Your task to perform on an android device: How do I get to the nearest McDonalds? Image 0: 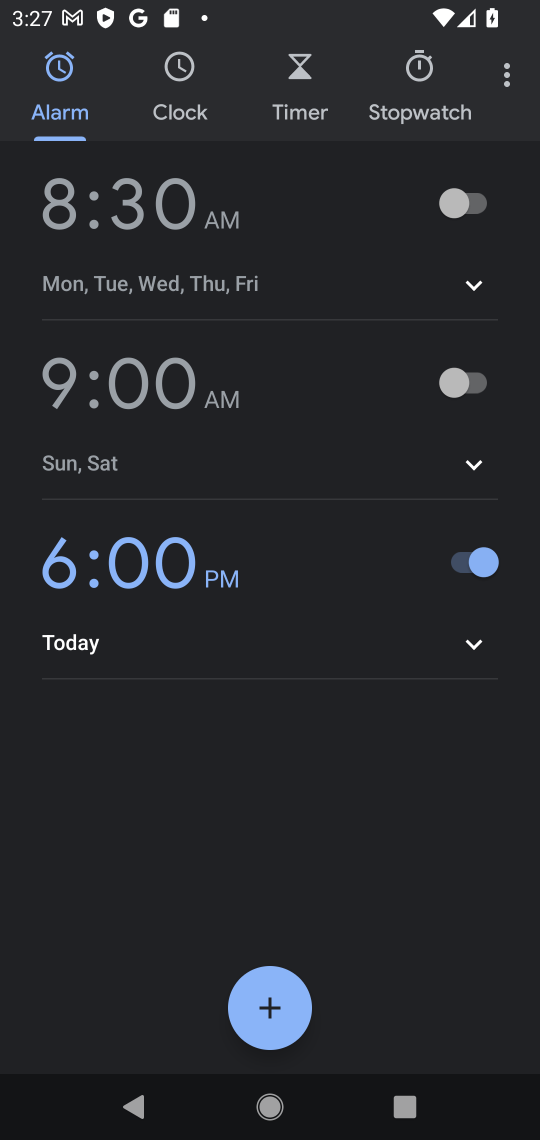
Step 0: press home button
Your task to perform on an android device: How do I get to the nearest McDonalds? Image 1: 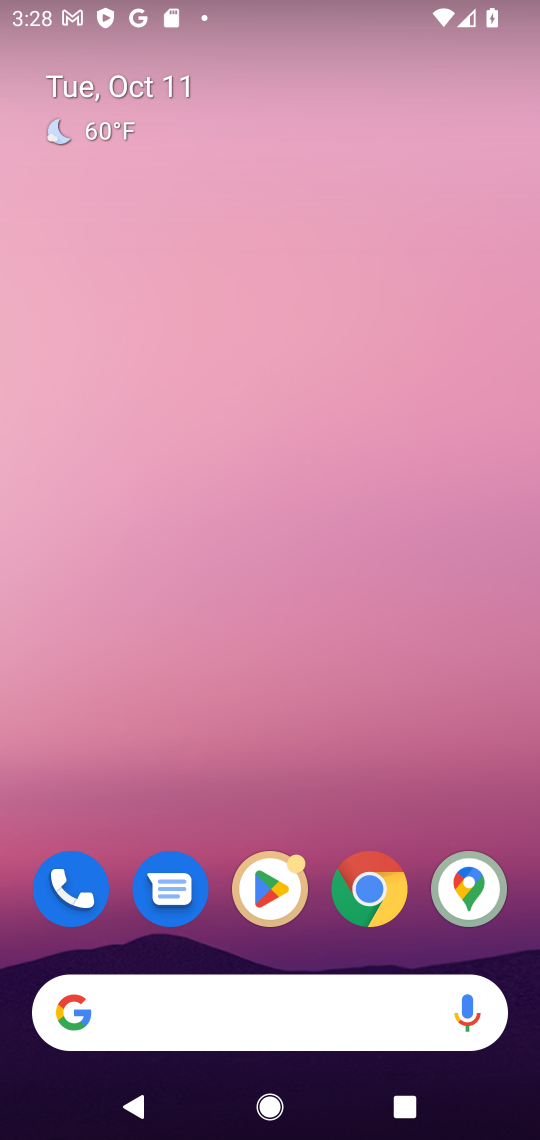
Step 1: drag from (189, 945) to (193, 291)
Your task to perform on an android device: How do I get to the nearest McDonalds? Image 2: 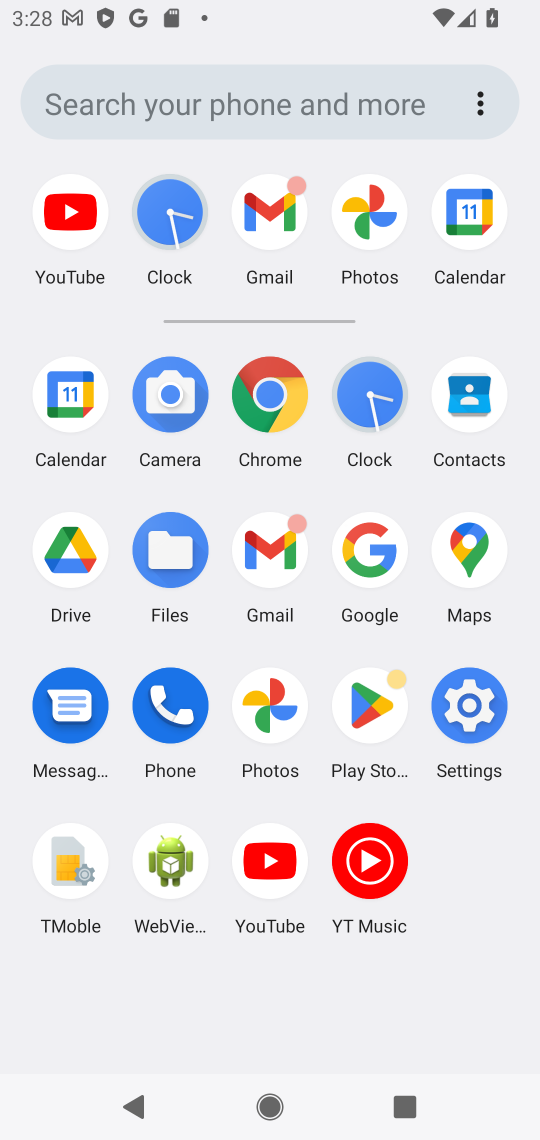
Step 2: click (375, 531)
Your task to perform on an android device: How do I get to the nearest McDonalds? Image 3: 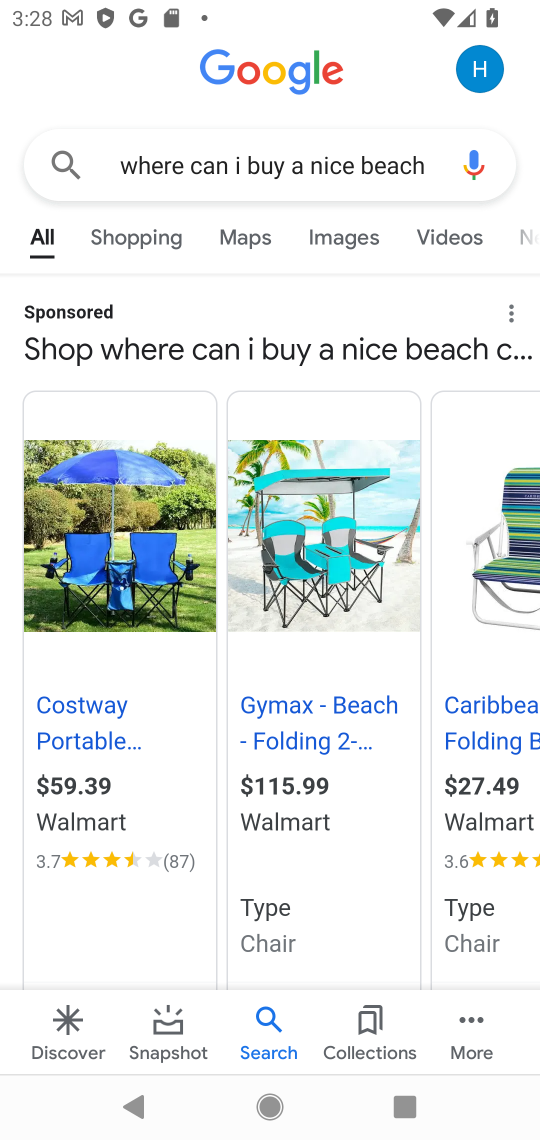
Step 3: click (296, 162)
Your task to perform on an android device: How do I get to the nearest McDonalds? Image 4: 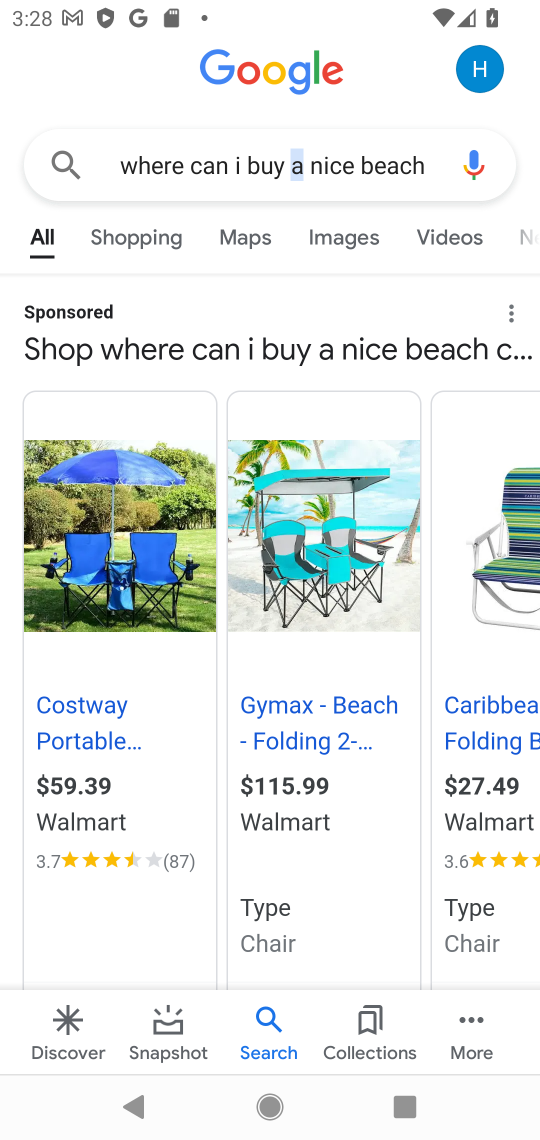
Step 4: click (326, 153)
Your task to perform on an android device: How do I get to the nearest McDonalds? Image 5: 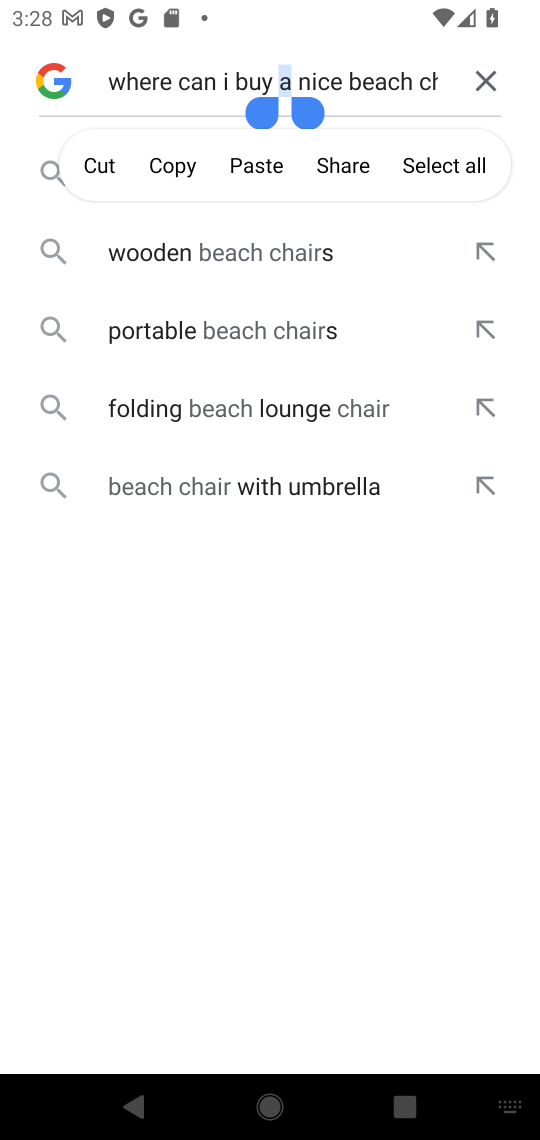
Step 5: click (482, 74)
Your task to perform on an android device: How do I get to the nearest McDonalds? Image 6: 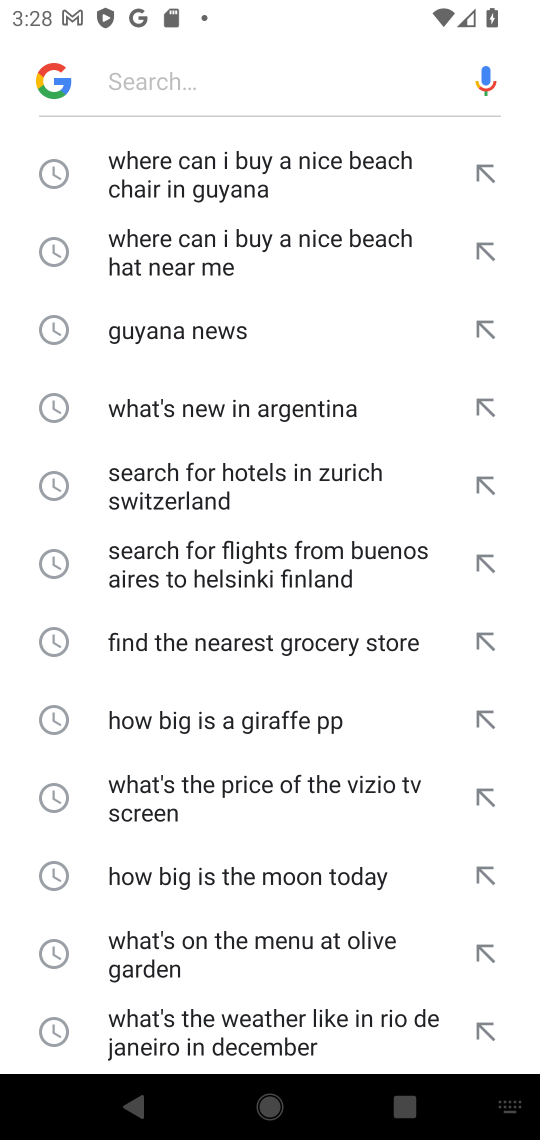
Step 6: click (118, 57)
Your task to perform on an android device: How do I get to the nearest McDonalds? Image 7: 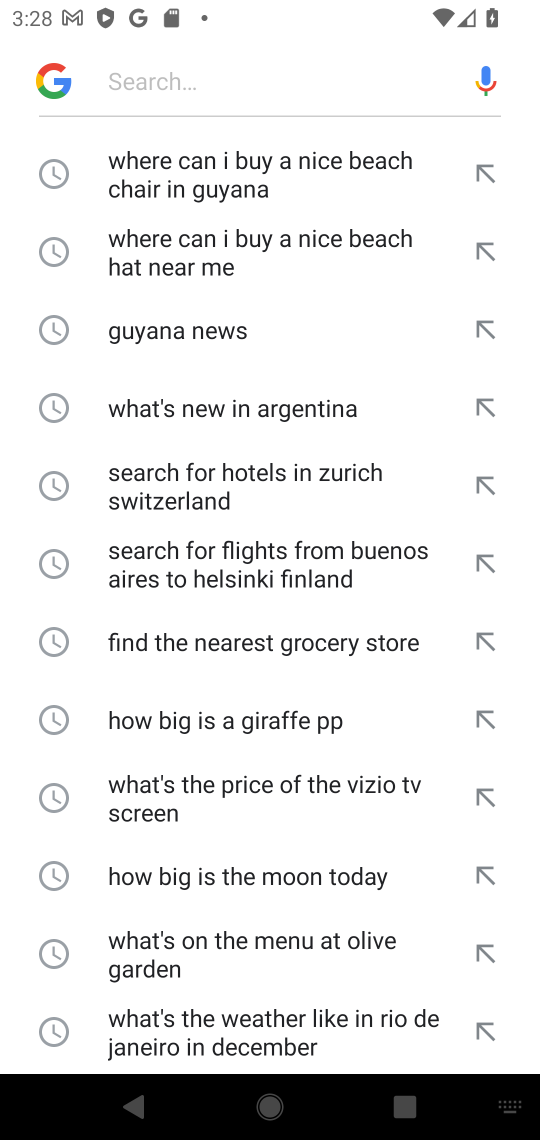
Step 7: type "How do I get to the nearest McDonalds? "
Your task to perform on an android device: How do I get to the nearest McDonalds? Image 8: 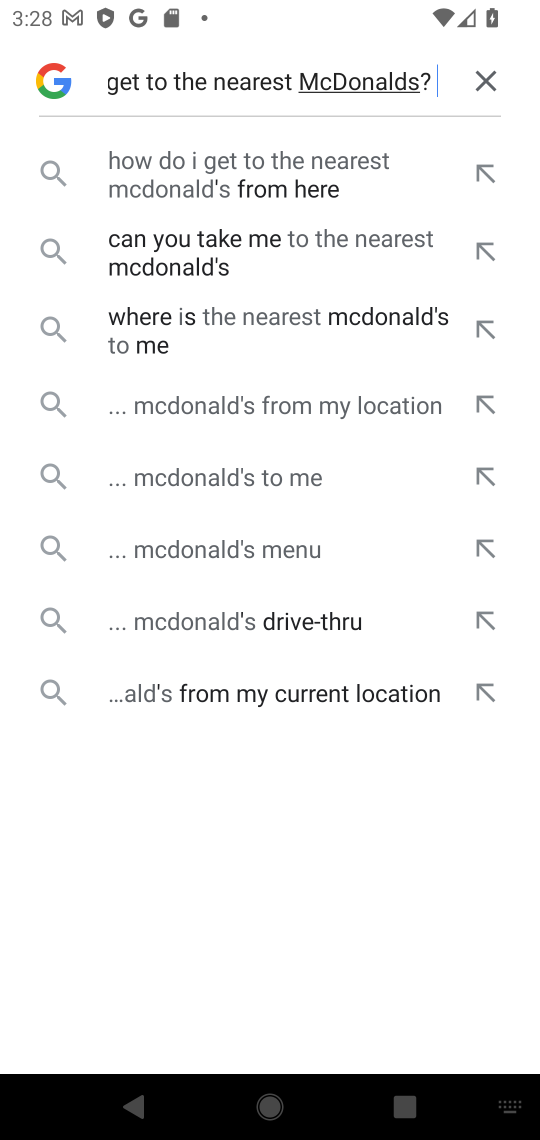
Step 8: click (146, 170)
Your task to perform on an android device: How do I get to the nearest McDonalds? Image 9: 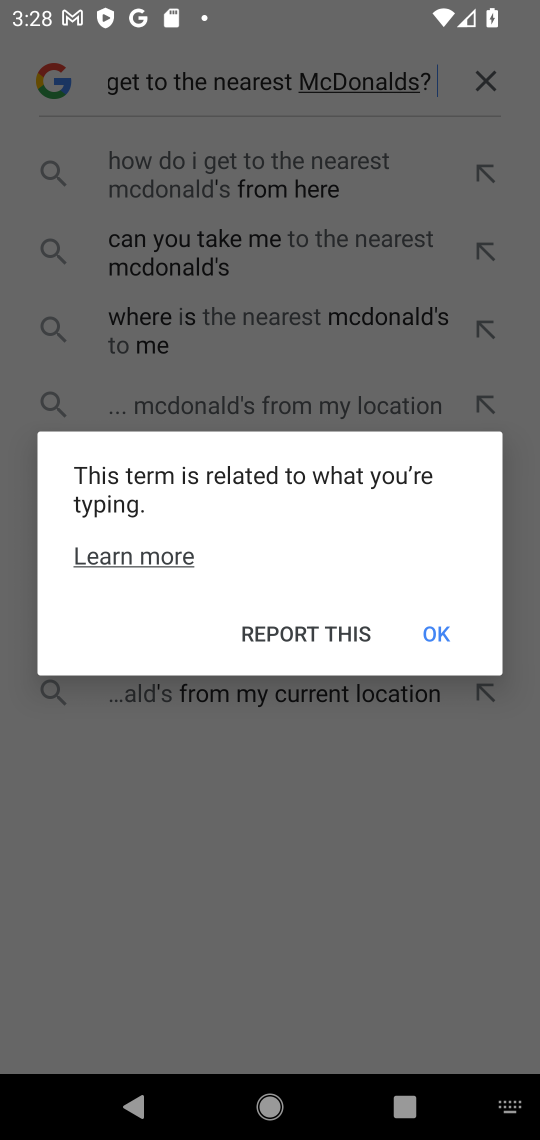
Step 9: click (423, 638)
Your task to perform on an android device: How do I get to the nearest McDonalds? Image 10: 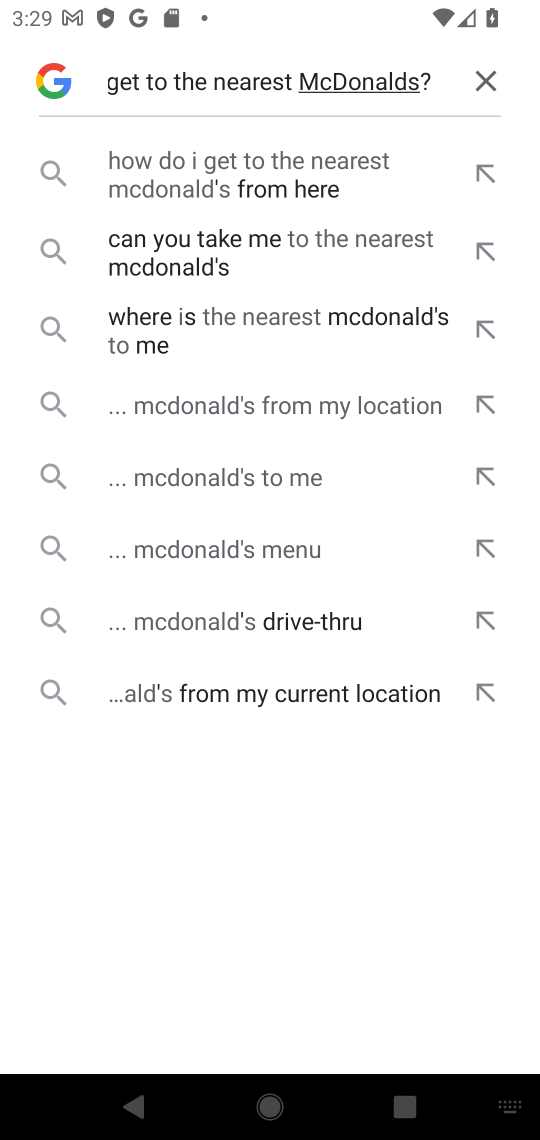
Step 10: click (253, 242)
Your task to perform on an android device: How do I get to the nearest McDonalds? Image 11: 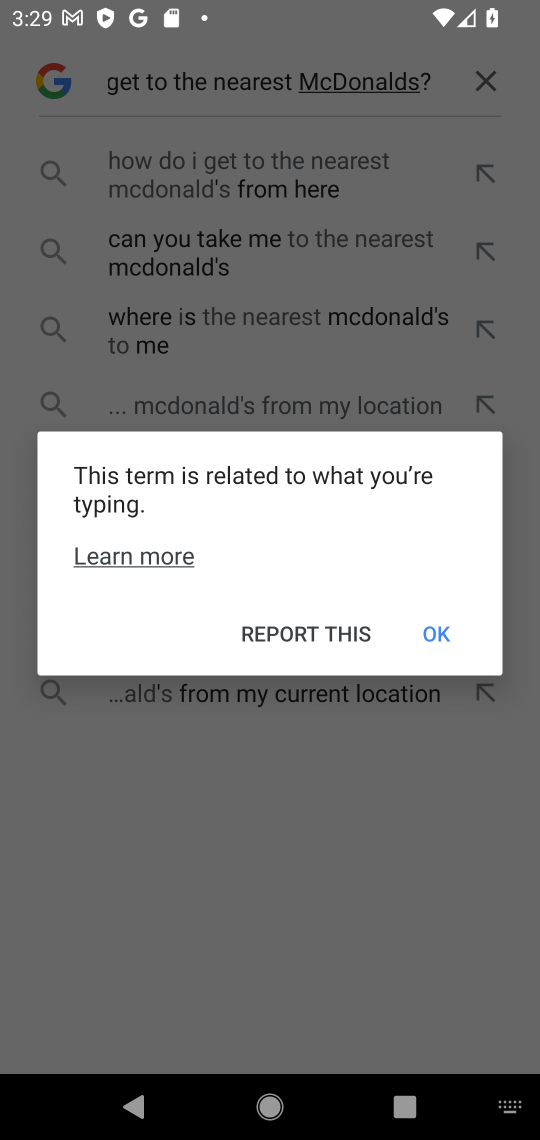
Step 11: click (424, 652)
Your task to perform on an android device: How do I get to the nearest McDonalds? Image 12: 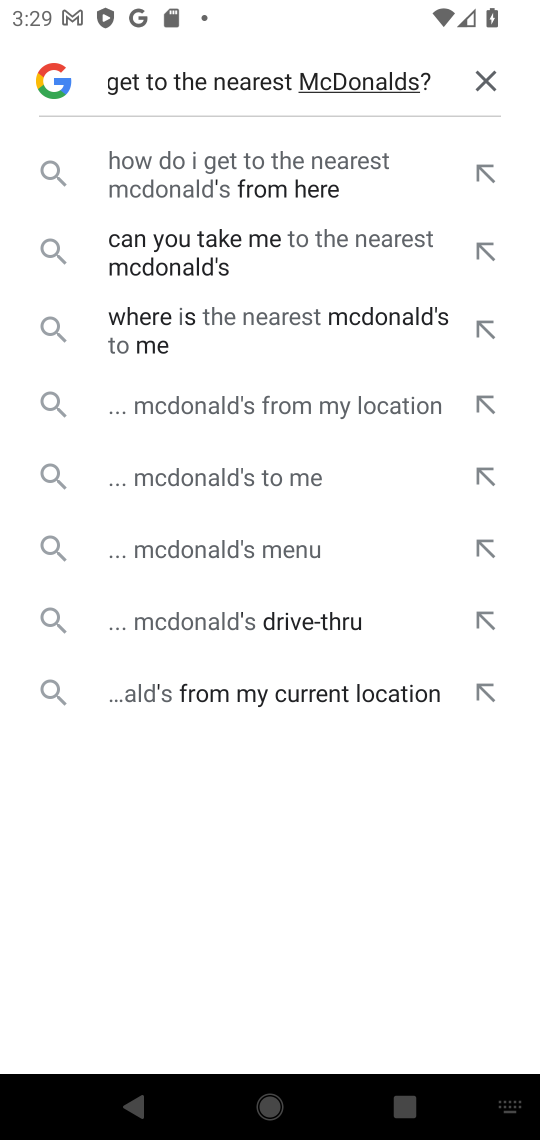
Step 12: click (256, 318)
Your task to perform on an android device: How do I get to the nearest McDonalds? Image 13: 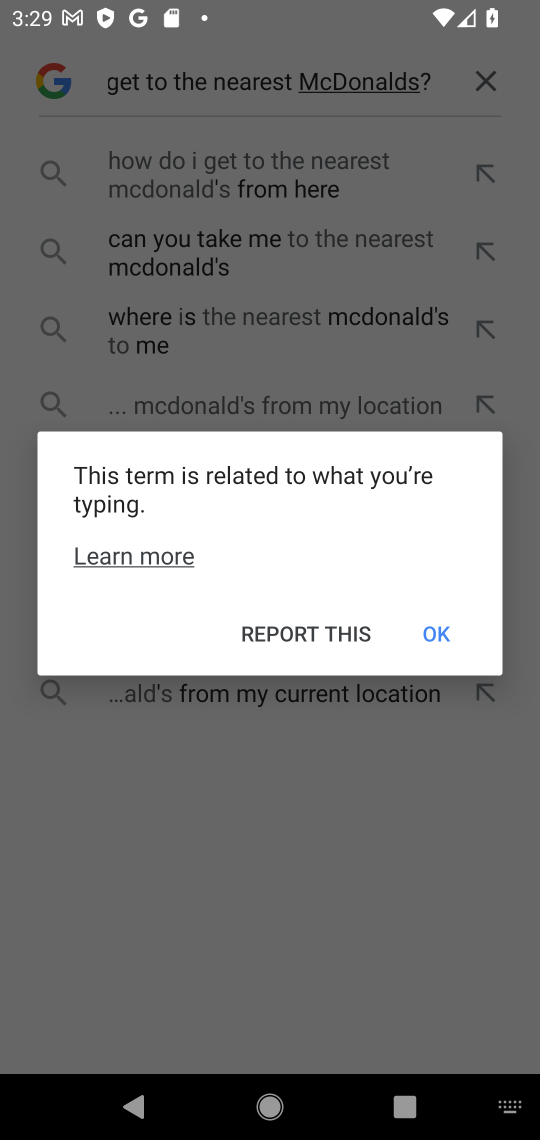
Step 13: click (427, 630)
Your task to perform on an android device: How do I get to the nearest McDonalds? Image 14: 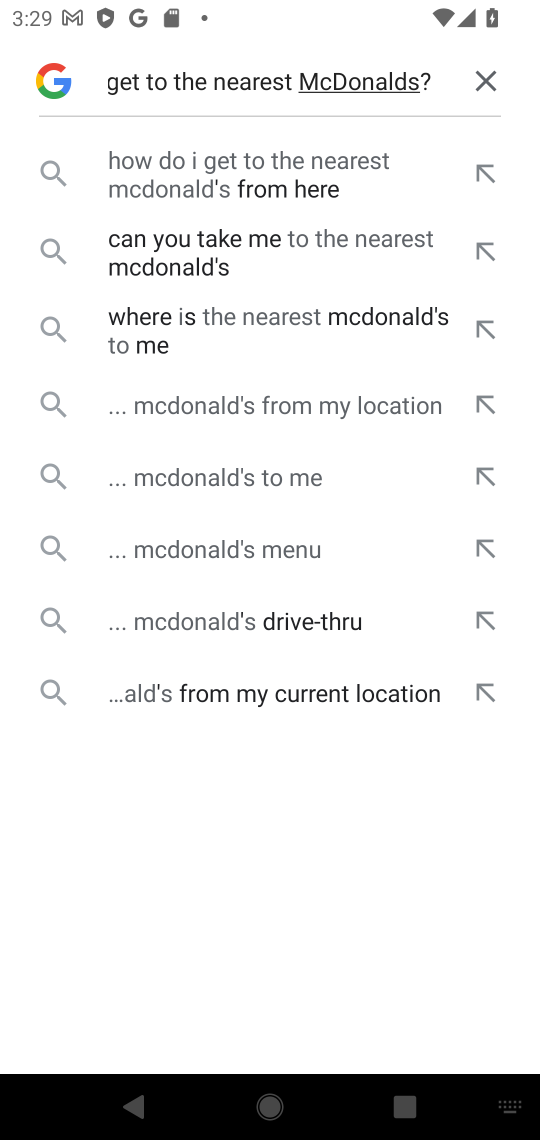
Step 14: click (286, 431)
Your task to perform on an android device: How do I get to the nearest McDonalds? Image 15: 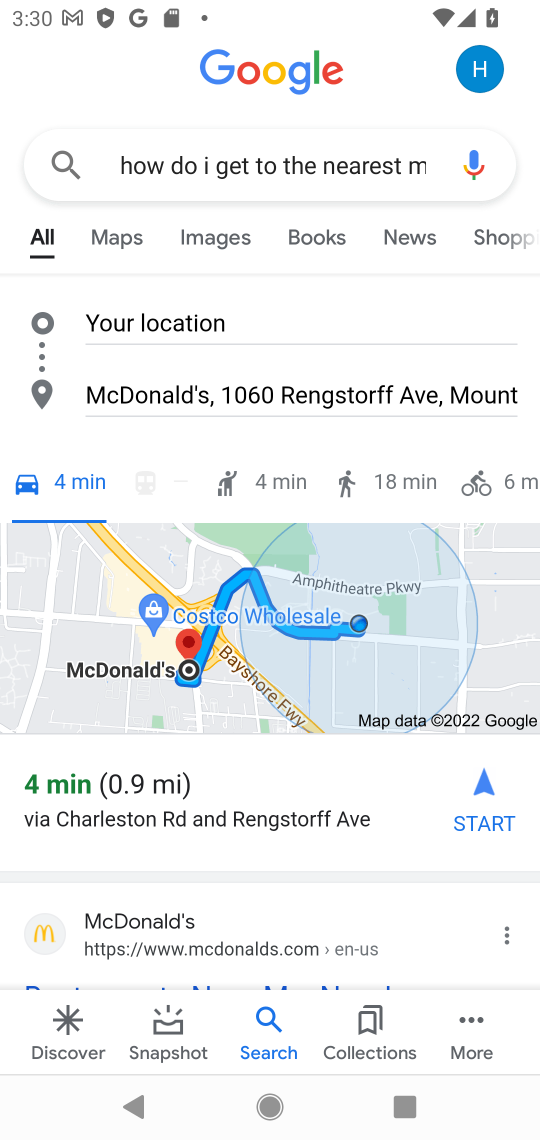
Step 15: task complete